Your task to perform on an android device: turn off notifications settings in the gmail app Image 0: 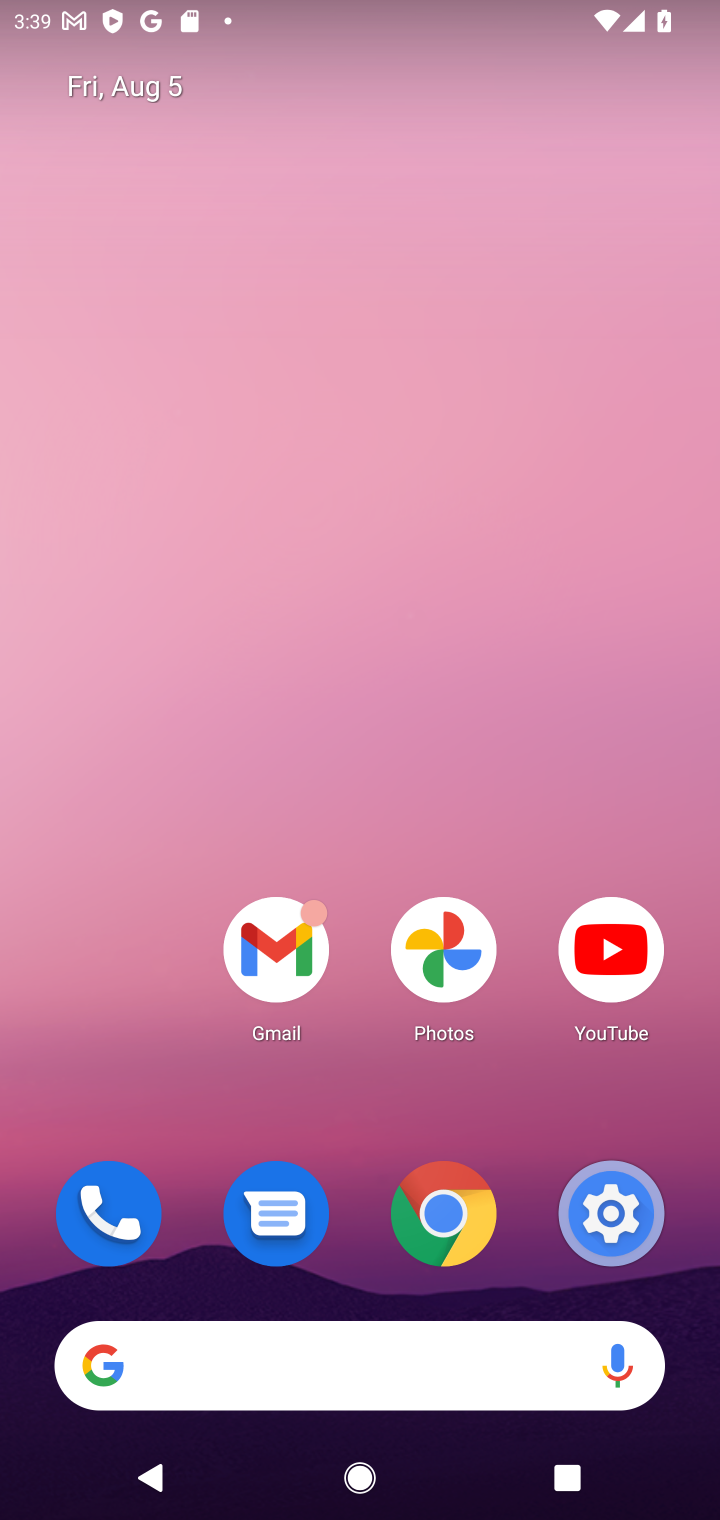
Step 0: click (584, 1203)
Your task to perform on an android device: turn off notifications settings in the gmail app Image 1: 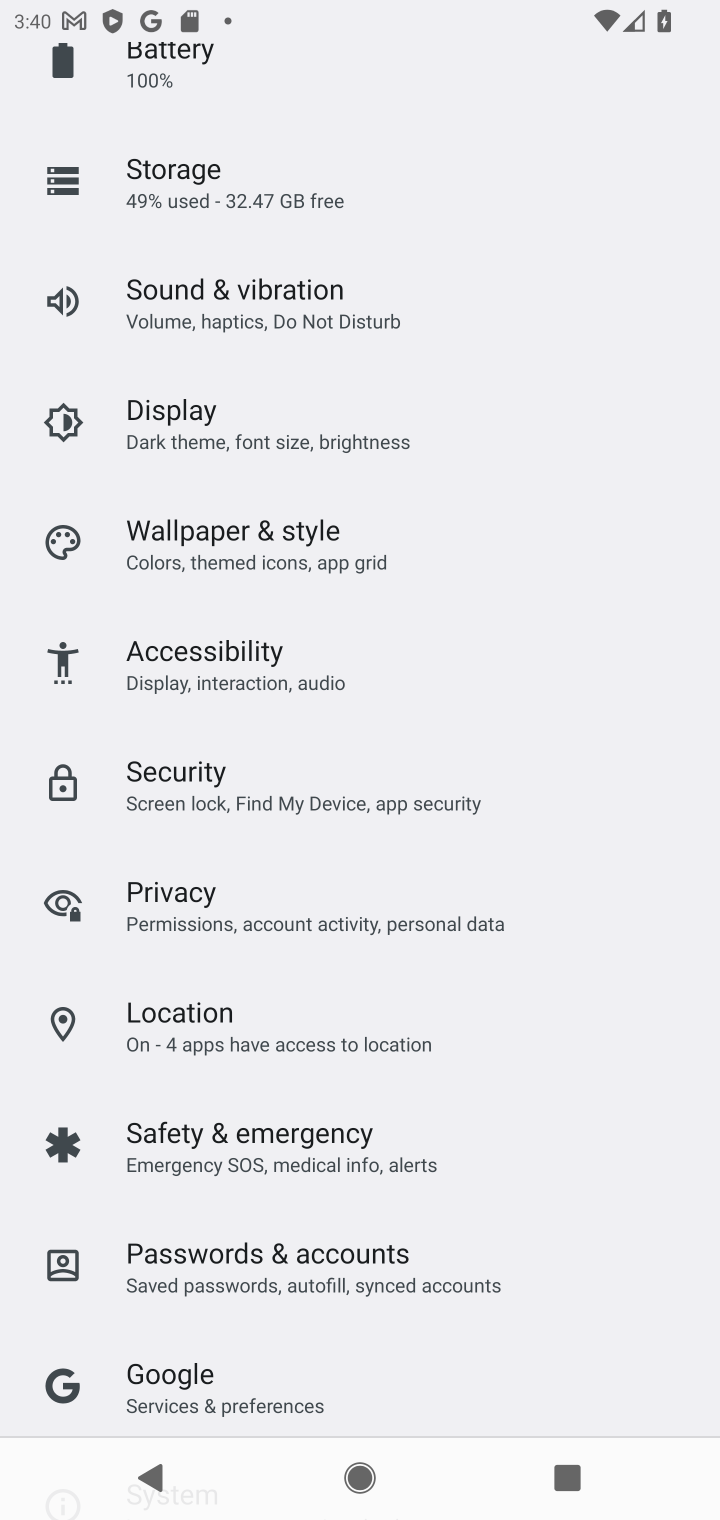
Step 1: task complete